Your task to perform on an android device: set the stopwatch Image 0: 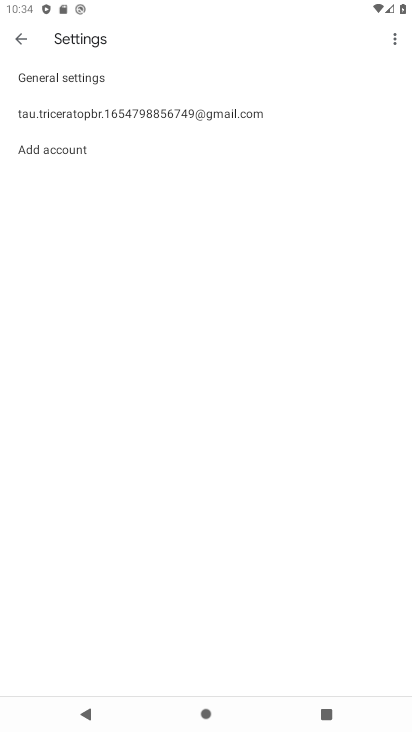
Step 0: press home button
Your task to perform on an android device: set the stopwatch Image 1: 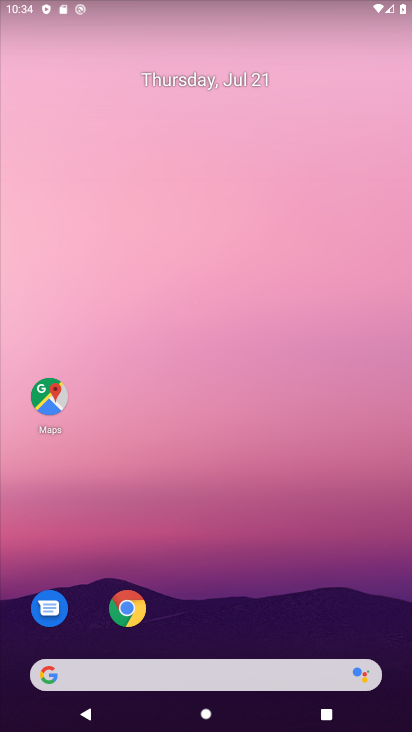
Step 1: drag from (185, 591) to (162, 97)
Your task to perform on an android device: set the stopwatch Image 2: 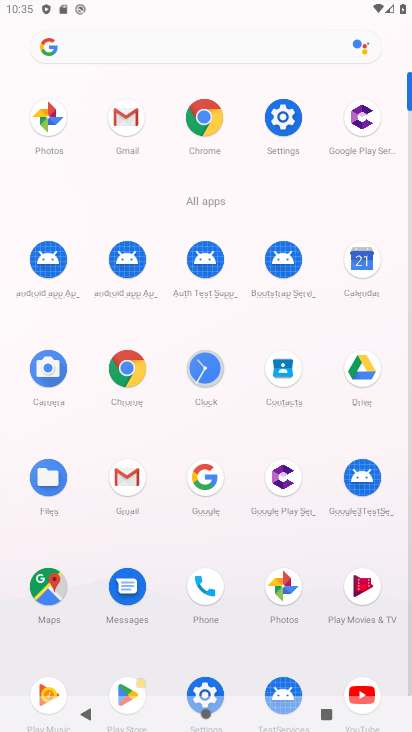
Step 2: click (207, 374)
Your task to perform on an android device: set the stopwatch Image 3: 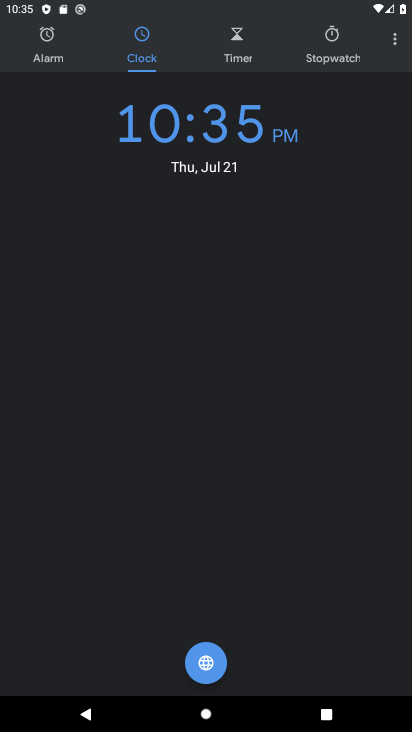
Step 3: click (329, 51)
Your task to perform on an android device: set the stopwatch Image 4: 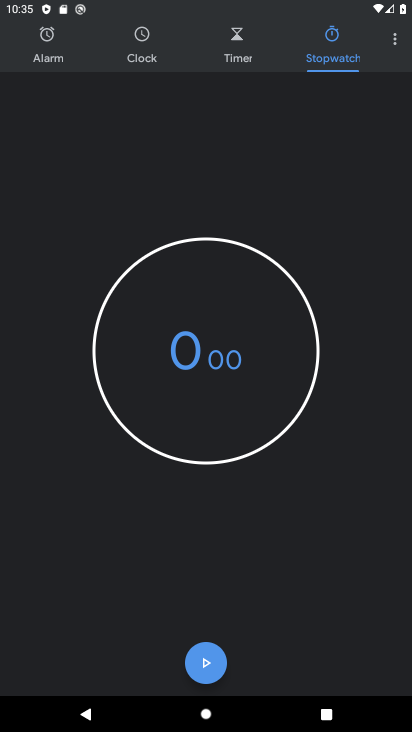
Step 4: click (204, 663)
Your task to perform on an android device: set the stopwatch Image 5: 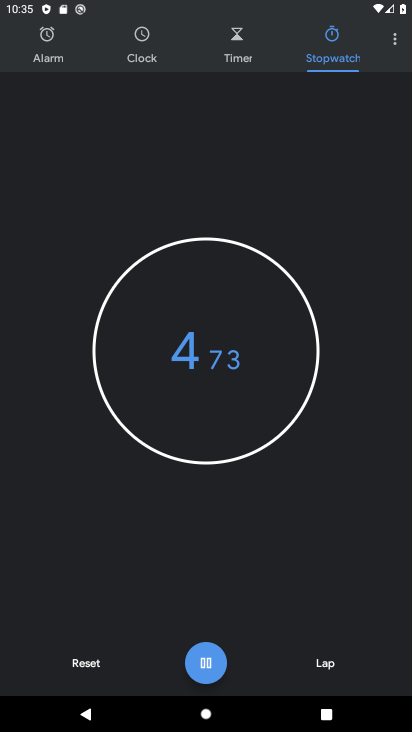
Step 5: click (204, 663)
Your task to perform on an android device: set the stopwatch Image 6: 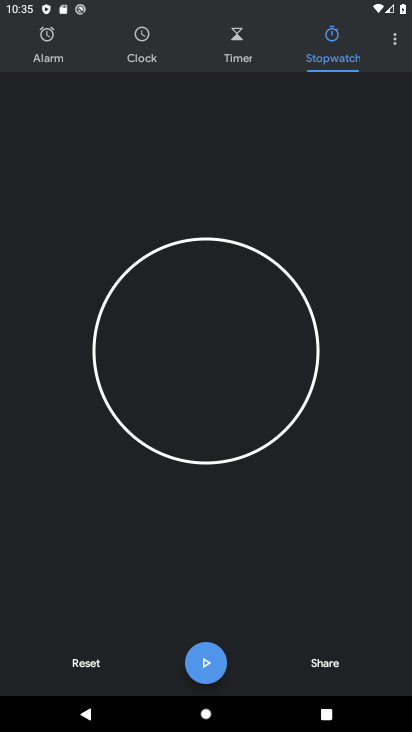
Step 6: task complete